Your task to perform on an android device: open a bookmark in the chrome app Image 0: 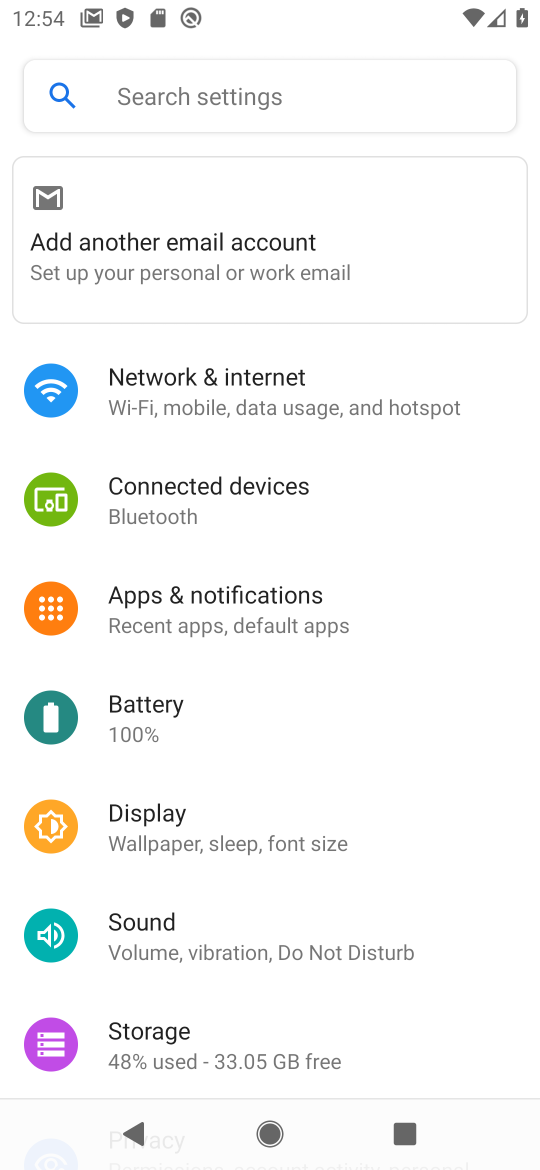
Step 0: press home button
Your task to perform on an android device: open a bookmark in the chrome app Image 1: 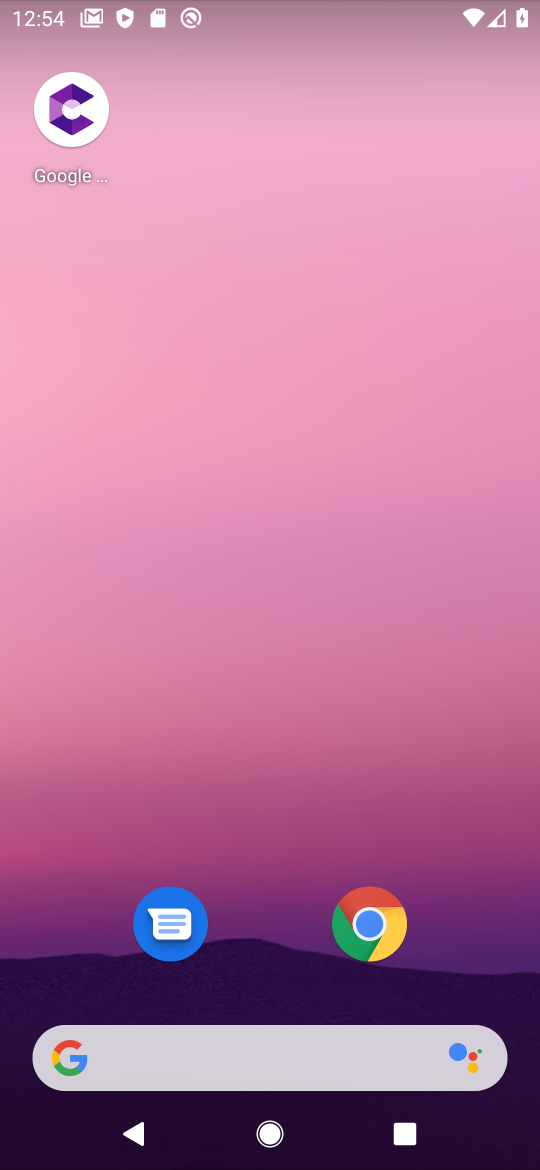
Step 1: click (374, 923)
Your task to perform on an android device: open a bookmark in the chrome app Image 2: 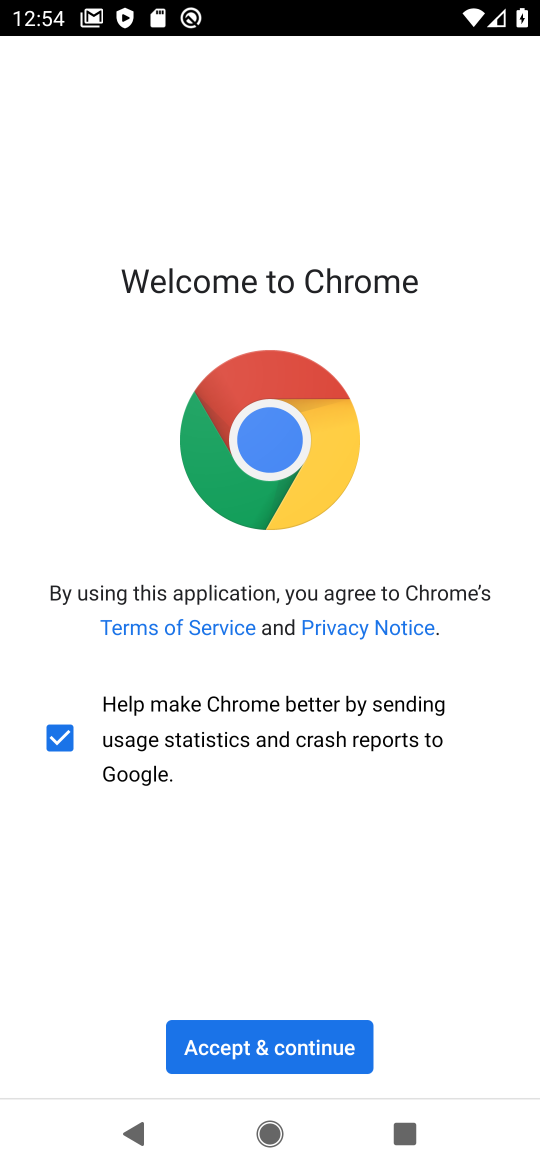
Step 2: click (286, 1055)
Your task to perform on an android device: open a bookmark in the chrome app Image 3: 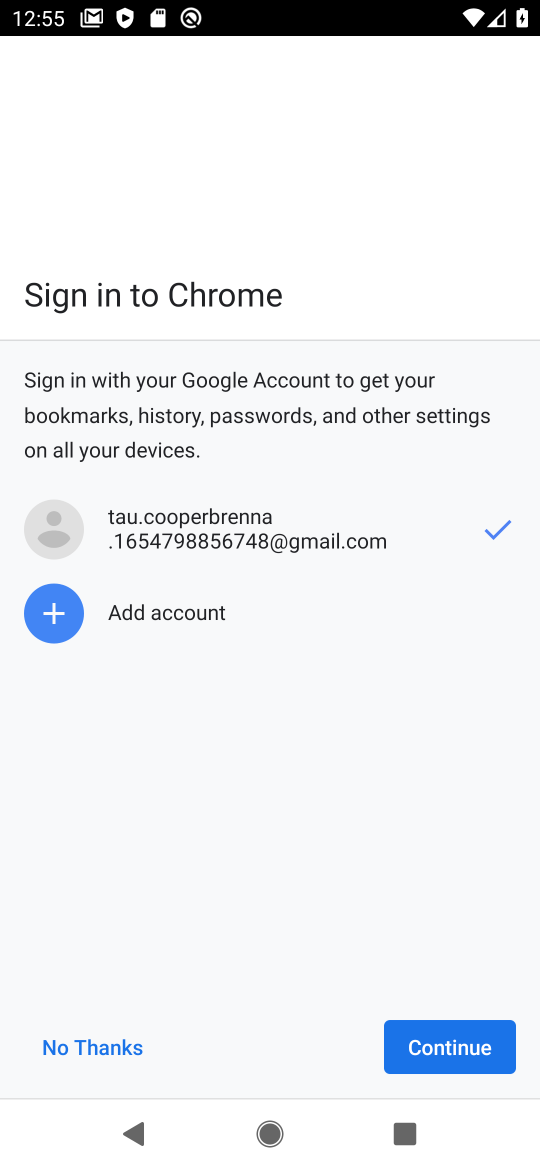
Step 3: click (475, 1050)
Your task to perform on an android device: open a bookmark in the chrome app Image 4: 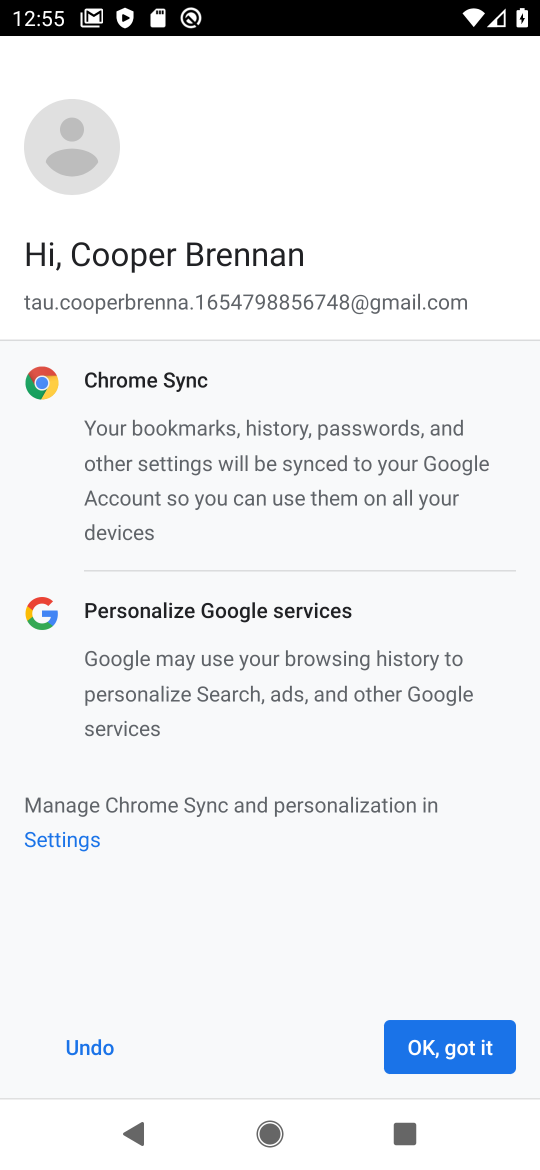
Step 4: click (475, 1050)
Your task to perform on an android device: open a bookmark in the chrome app Image 5: 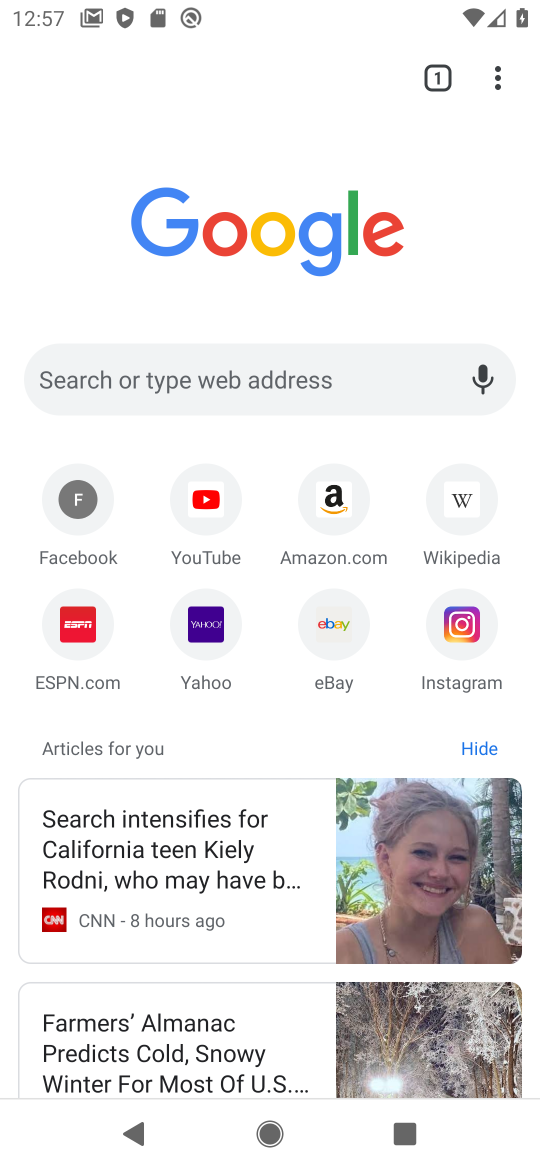
Step 5: click (507, 81)
Your task to perform on an android device: open a bookmark in the chrome app Image 6: 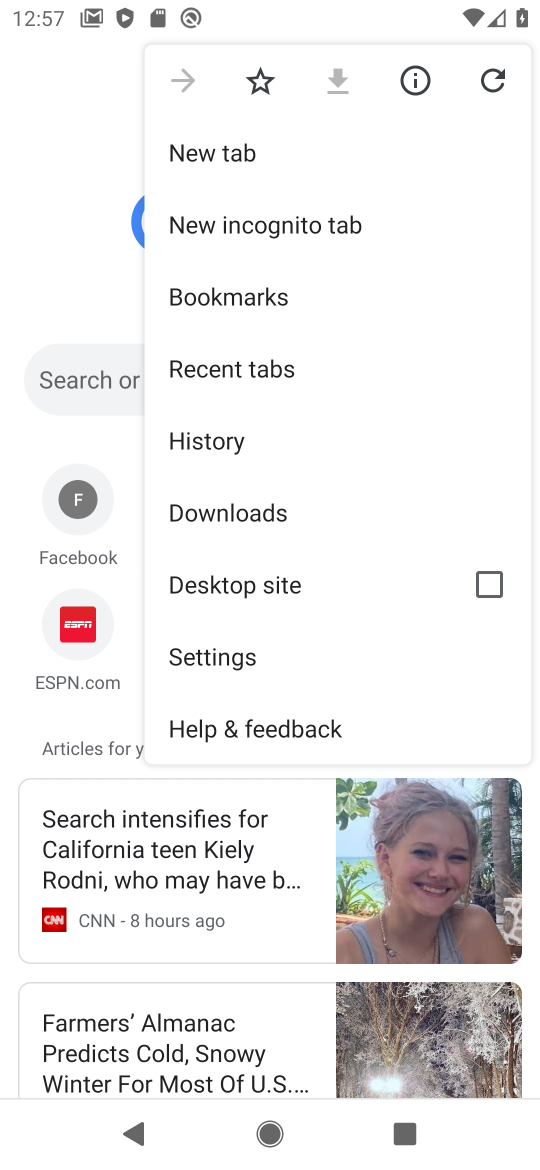
Step 6: task complete